Your task to perform on an android device: Add "razer kraken" to the cart on target.com, then select checkout. Image 0: 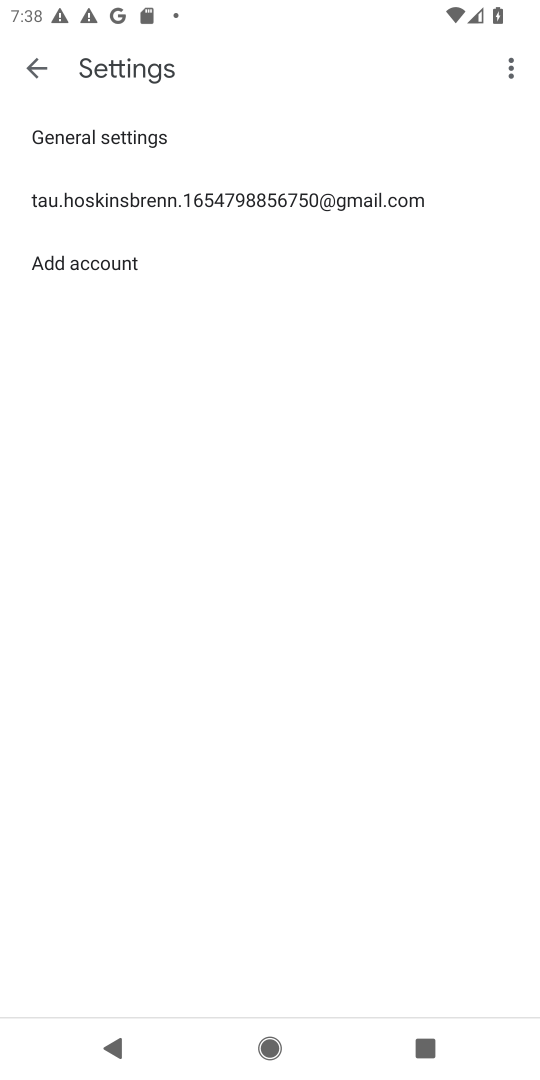
Step 0: press home button
Your task to perform on an android device: Add "razer kraken" to the cart on target.com, then select checkout. Image 1: 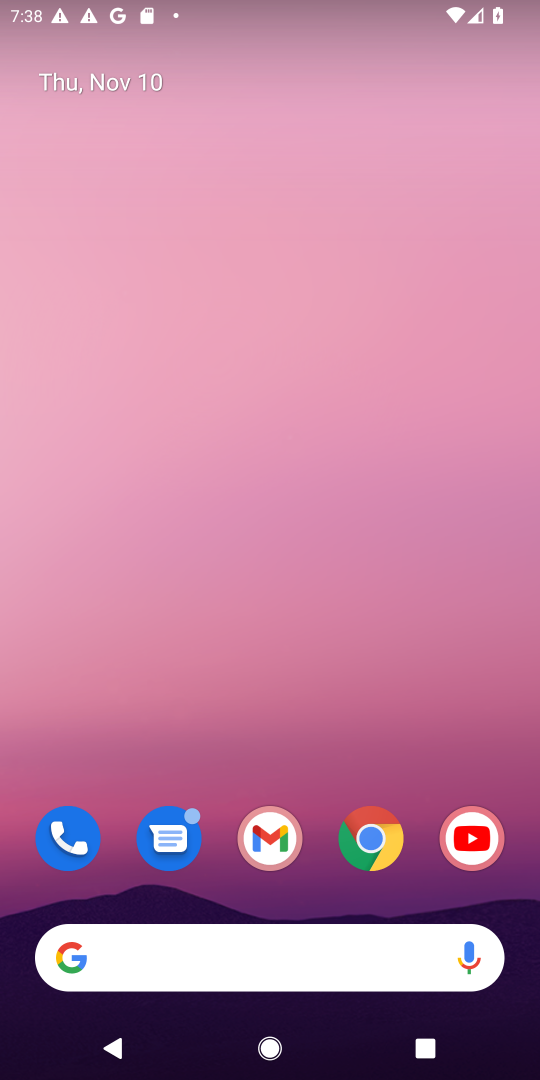
Step 1: drag from (331, 890) to (372, 204)
Your task to perform on an android device: Add "razer kraken" to the cart on target.com, then select checkout. Image 2: 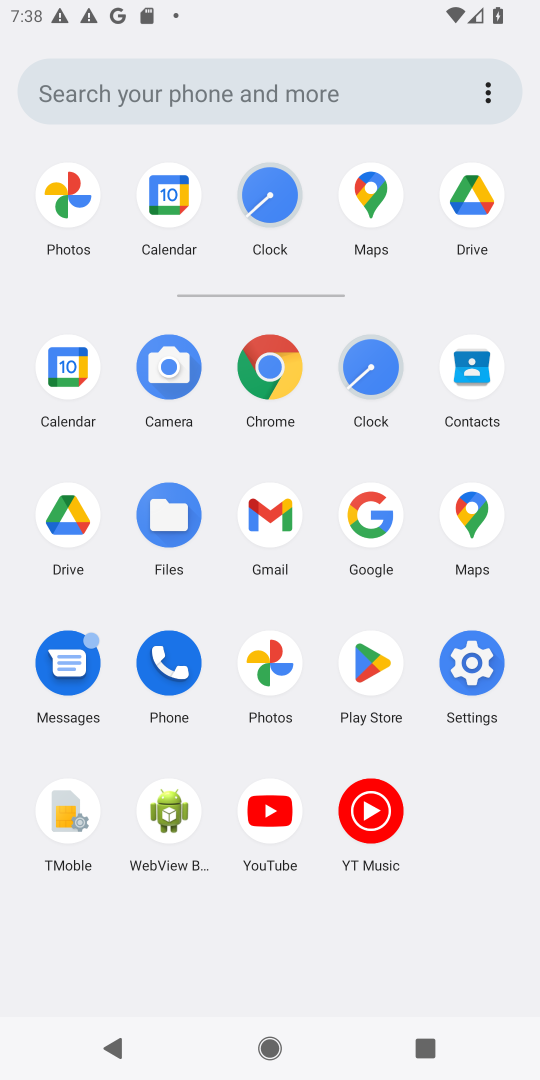
Step 2: click (270, 367)
Your task to perform on an android device: Add "razer kraken" to the cart on target.com, then select checkout. Image 3: 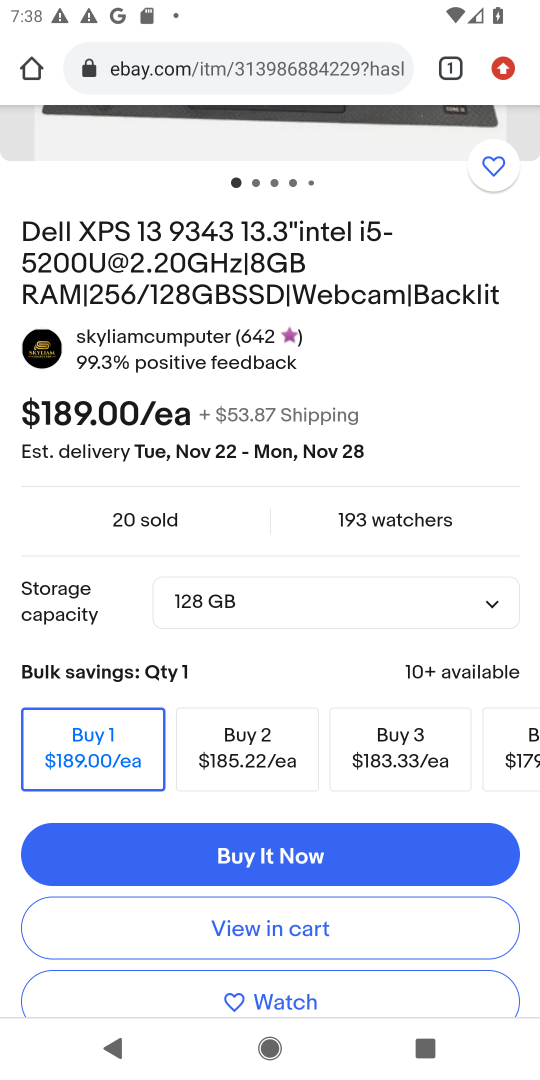
Step 3: click (230, 69)
Your task to perform on an android device: Add "razer kraken" to the cart on target.com, then select checkout. Image 4: 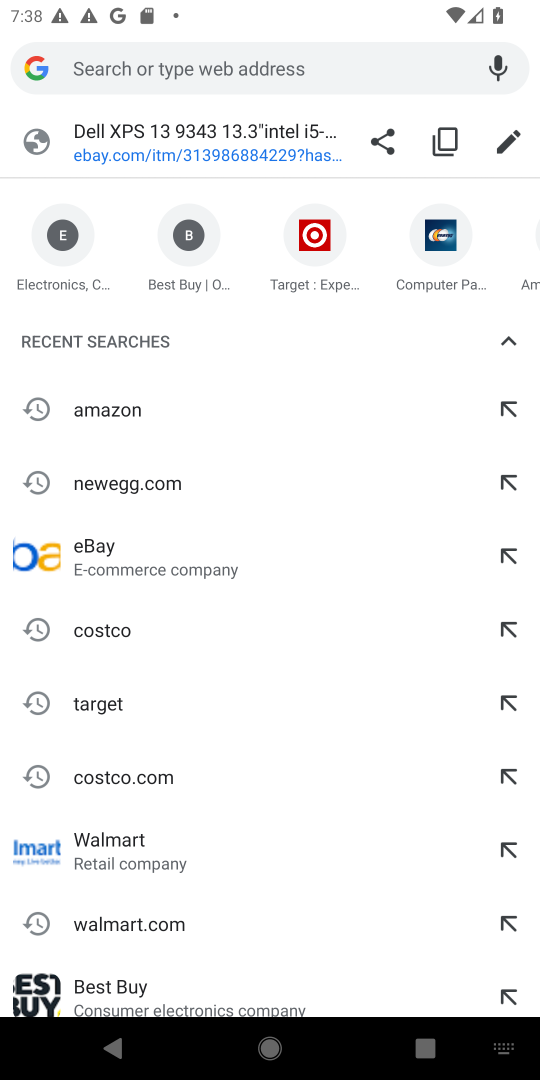
Step 4: type "target.com"
Your task to perform on an android device: Add "razer kraken" to the cart on target.com, then select checkout. Image 5: 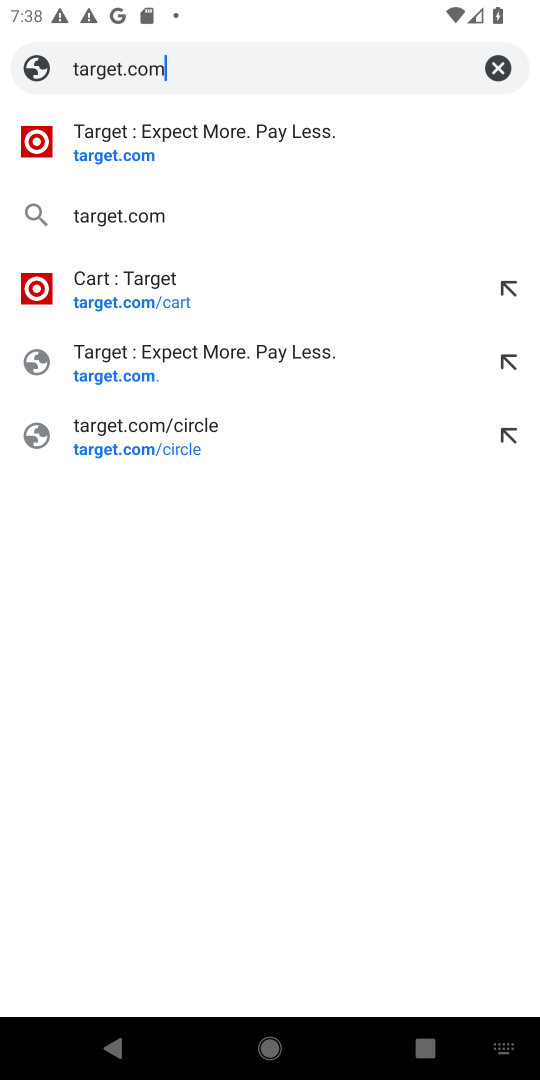
Step 5: press enter
Your task to perform on an android device: Add "razer kraken" to the cart on target.com, then select checkout. Image 6: 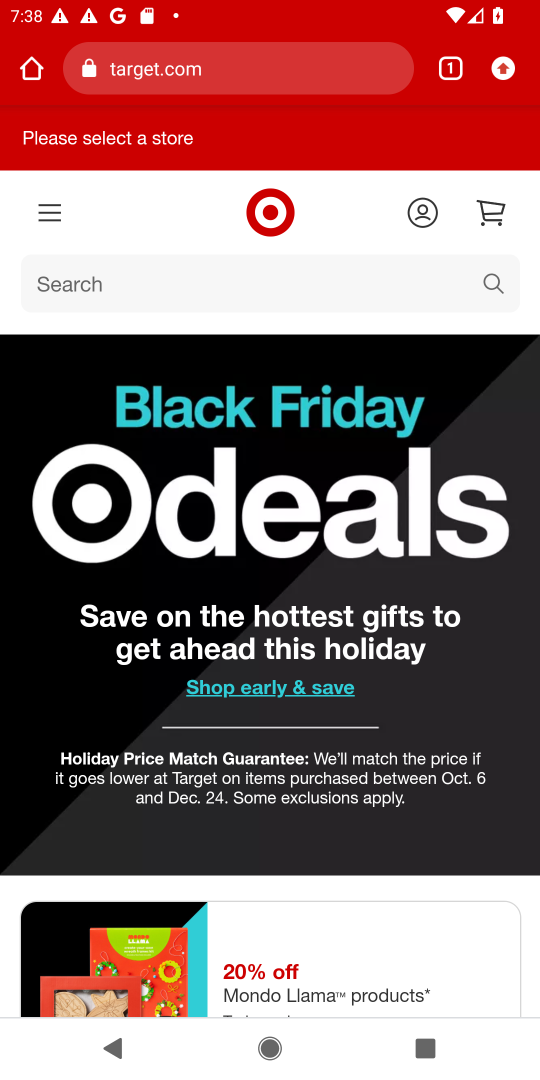
Step 6: click (210, 280)
Your task to perform on an android device: Add "razer kraken" to the cart on target.com, then select checkout. Image 7: 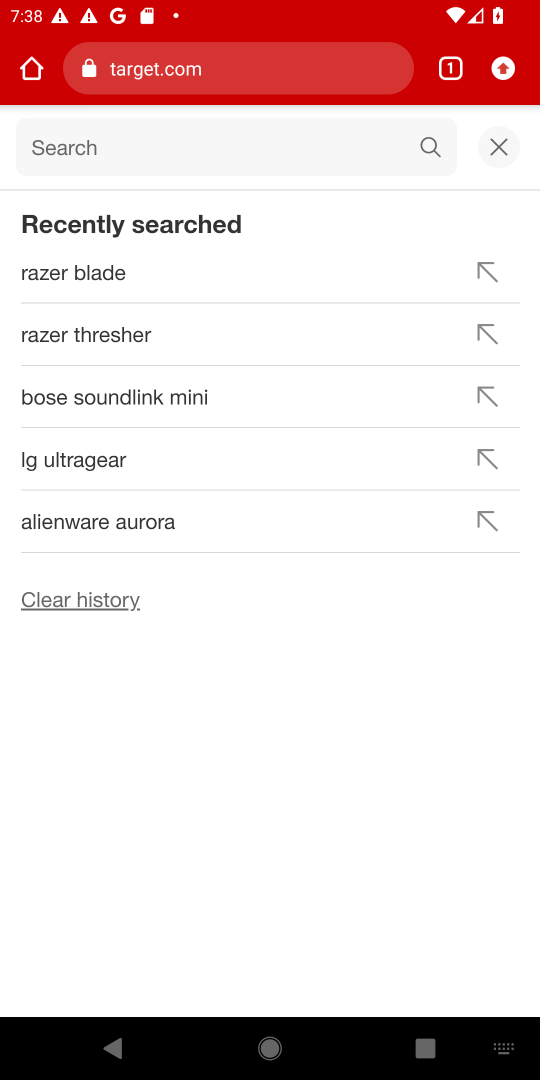
Step 7: type "razer kraken"
Your task to perform on an android device: Add "razer kraken" to the cart on target.com, then select checkout. Image 8: 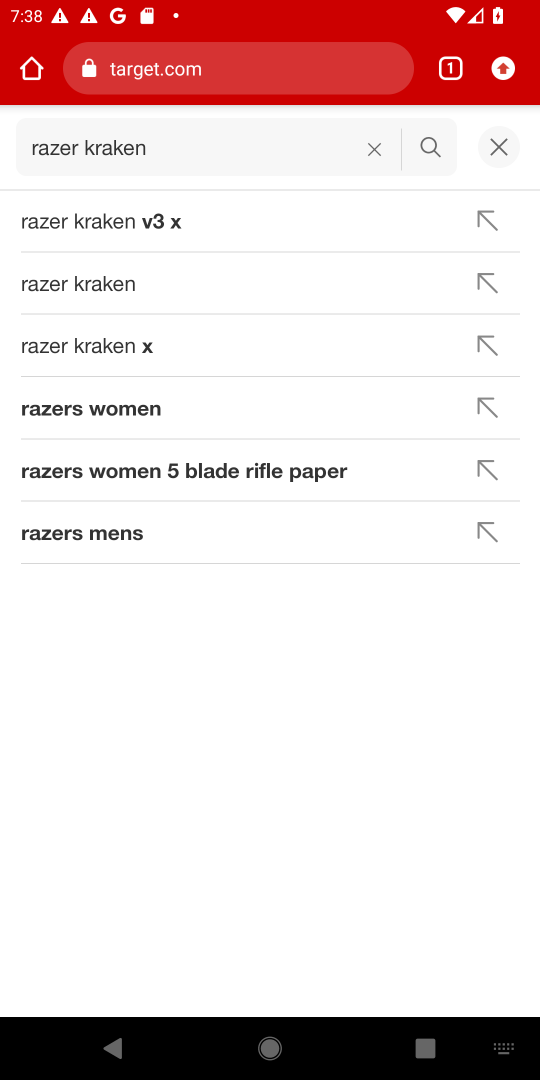
Step 8: press enter
Your task to perform on an android device: Add "razer kraken" to the cart on target.com, then select checkout. Image 9: 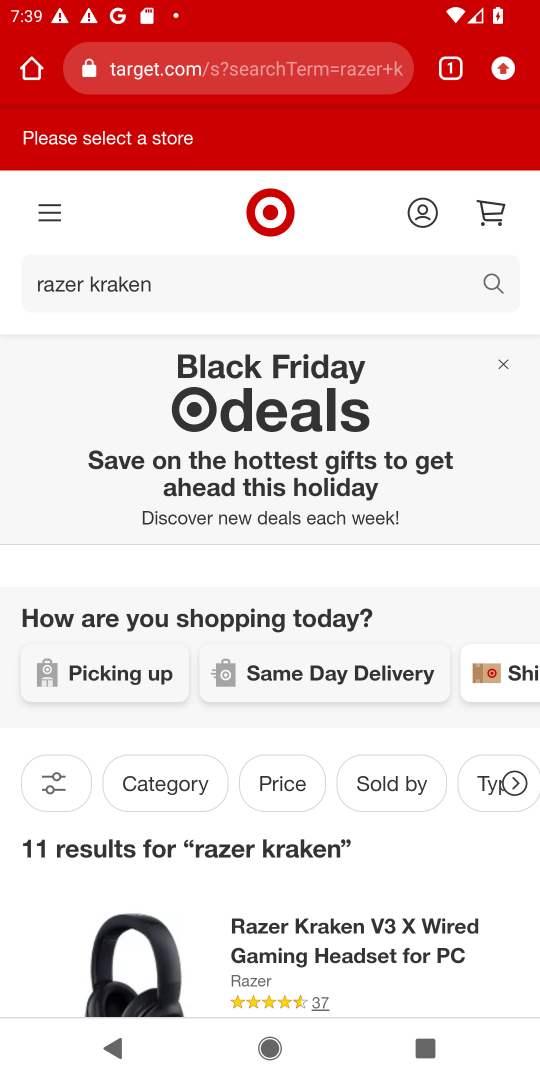
Step 9: drag from (338, 894) to (416, 233)
Your task to perform on an android device: Add "razer kraken" to the cart on target.com, then select checkout. Image 10: 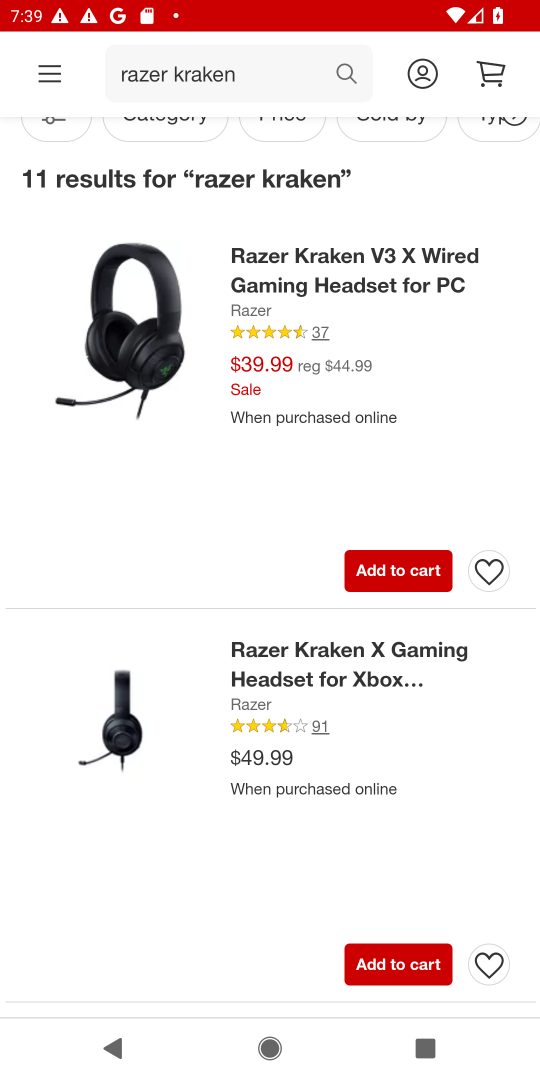
Step 10: click (403, 568)
Your task to perform on an android device: Add "razer kraken" to the cart on target.com, then select checkout. Image 11: 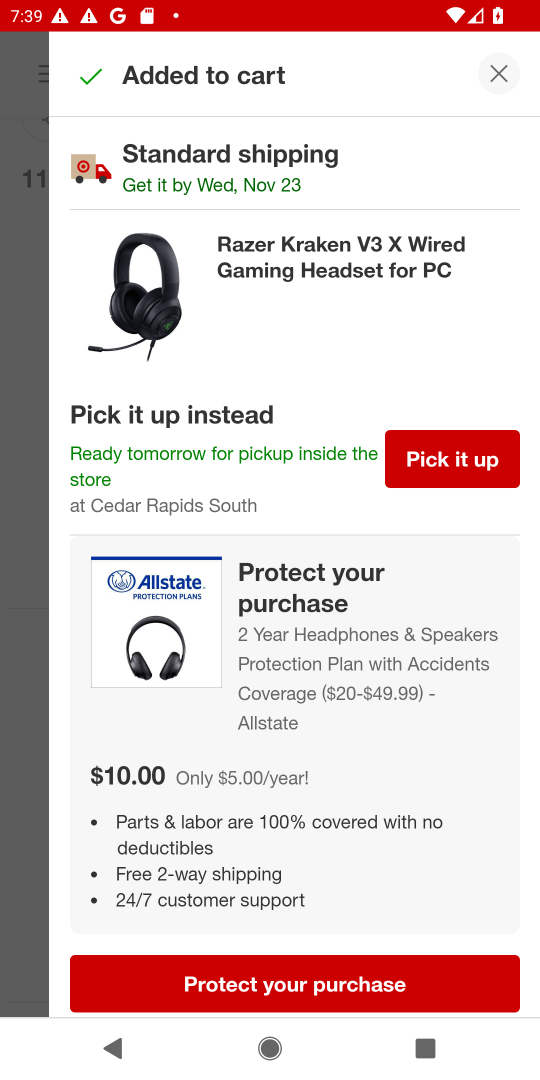
Step 11: click (504, 69)
Your task to perform on an android device: Add "razer kraken" to the cart on target.com, then select checkout. Image 12: 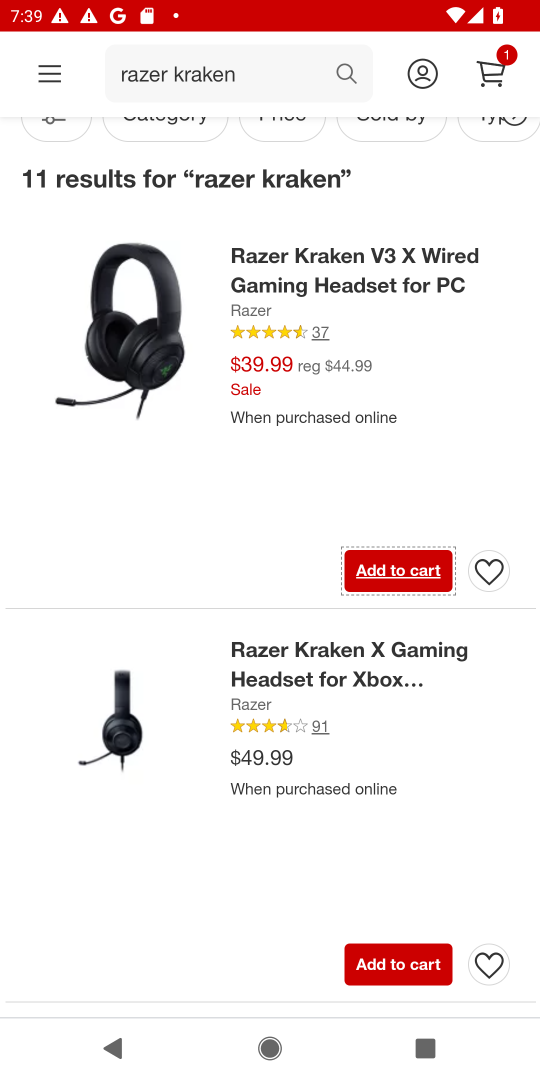
Step 12: click (501, 58)
Your task to perform on an android device: Add "razer kraken" to the cart on target.com, then select checkout. Image 13: 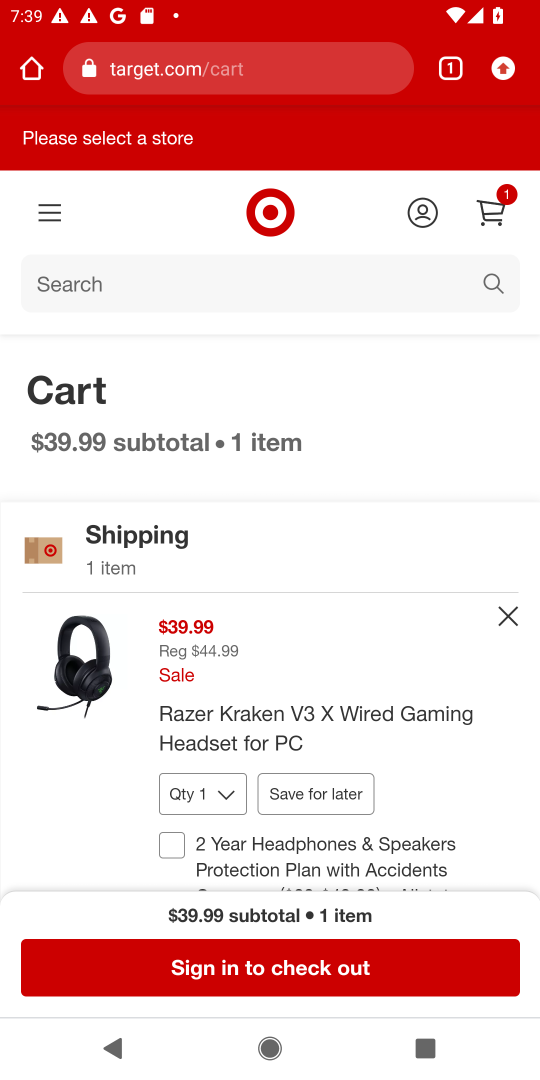
Step 13: click (286, 981)
Your task to perform on an android device: Add "razer kraken" to the cart on target.com, then select checkout. Image 14: 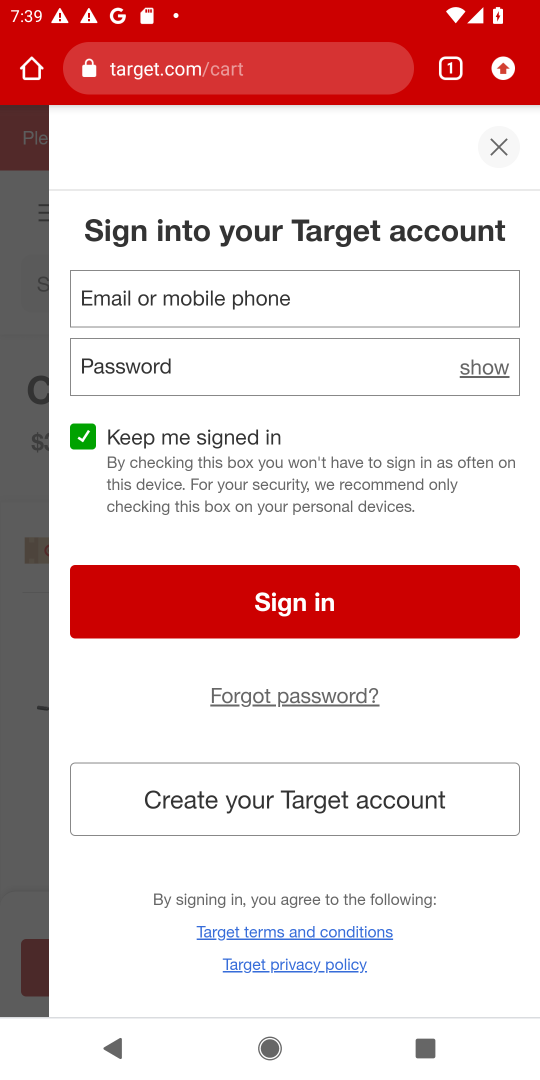
Step 14: task complete